Your task to perform on an android device: Turn off the flashlight Image 0: 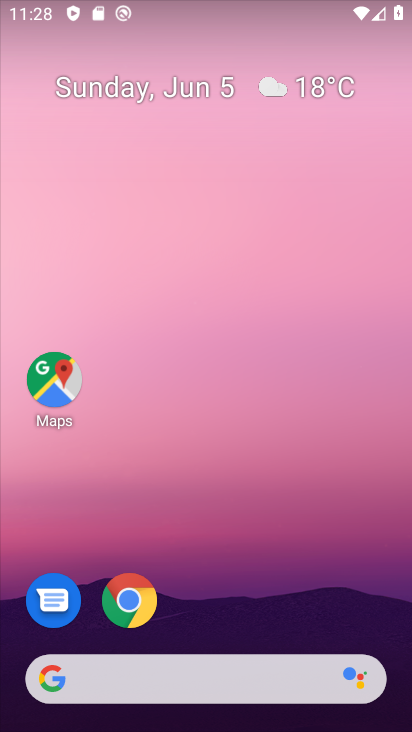
Step 0: drag from (243, 13) to (262, 515)
Your task to perform on an android device: Turn off the flashlight Image 1: 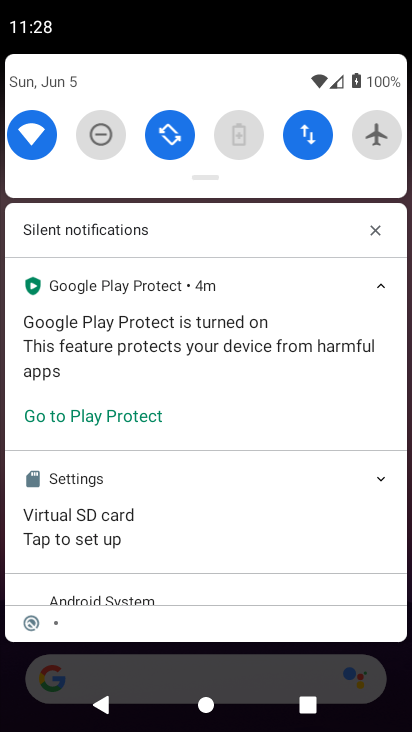
Step 1: drag from (200, 178) to (201, 709)
Your task to perform on an android device: Turn off the flashlight Image 2: 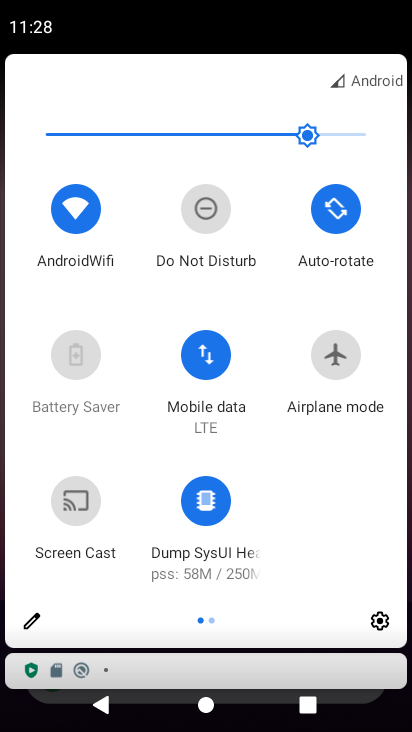
Step 2: click (32, 619)
Your task to perform on an android device: Turn off the flashlight Image 3: 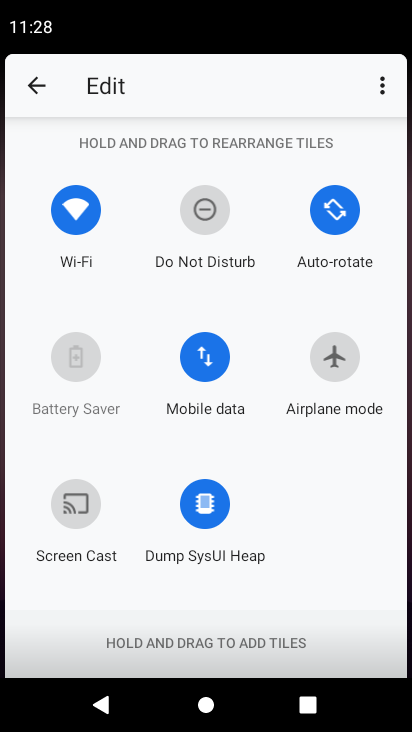
Step 3: task complete